Your task to perform on an android device: check out phone information Image 0: 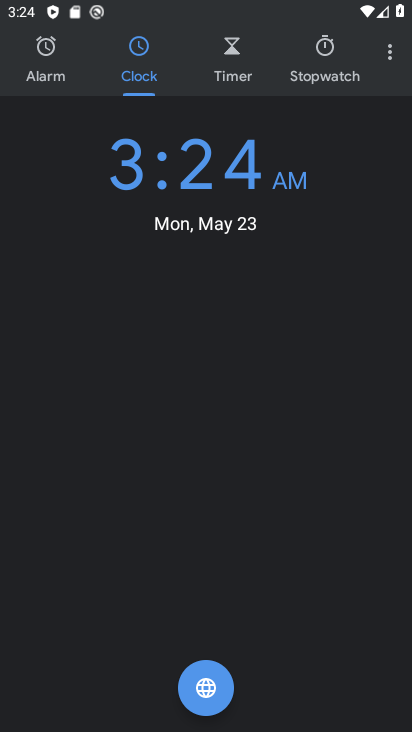
Step 0: press home button
Your task to perform on an android device: check out phone information Image 1: 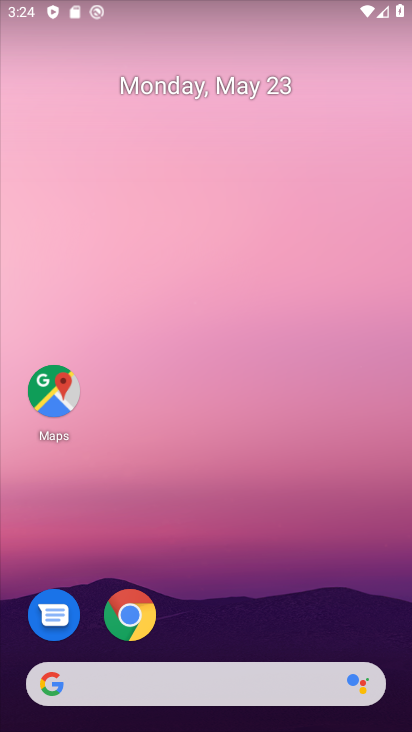
Step 1: drag from (377, 635) to (366, 149)
Your task to perform on an android device: check out phone information Image 2: 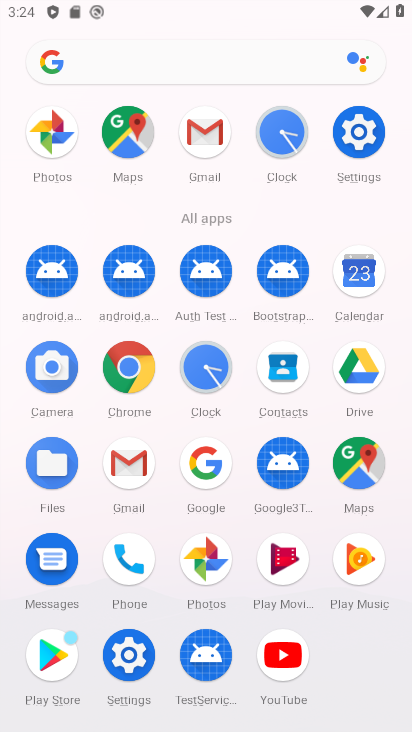
Step 2: click (116, 571)
Your task to perform on an android device: check out phone information Image 3: 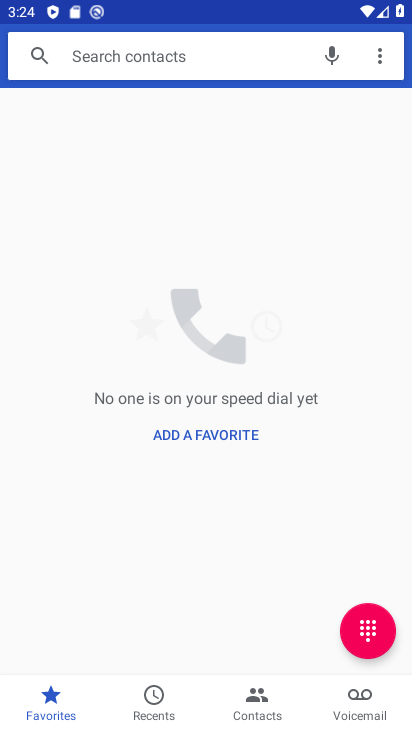
Step 3: task complete